Your task to perform on an android device: make emails show in primary in the gmail app Image 0: 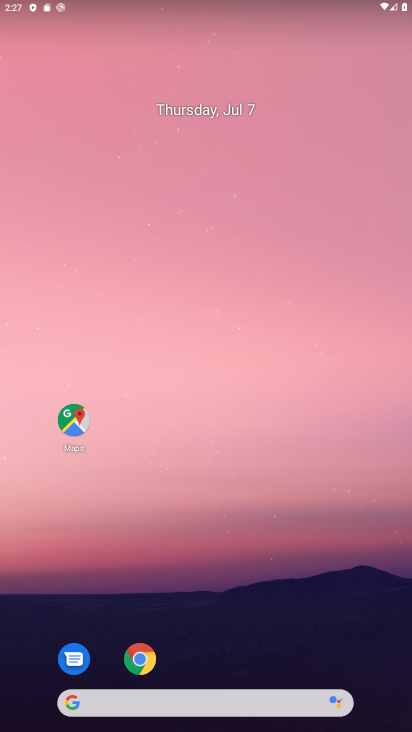
Step 0: drag from (40, 693) to (365, 16)
Your task to perform on an android device: make emails show in primary in the gmail app Image 1: 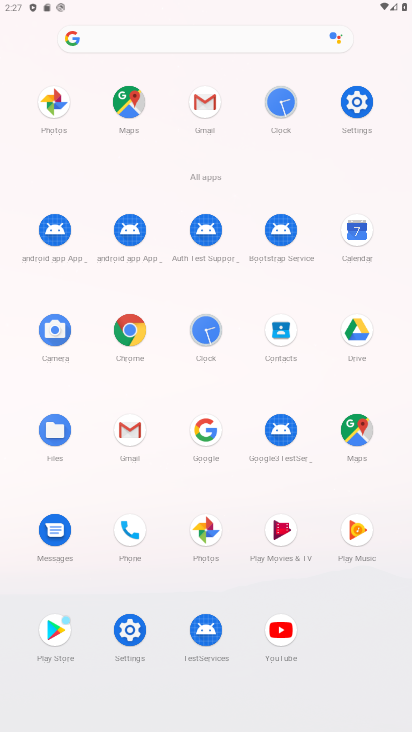
Step 1: click (125, 429)
Your task to perform on an android device: make emails show in primary in the gmail app Image 2: 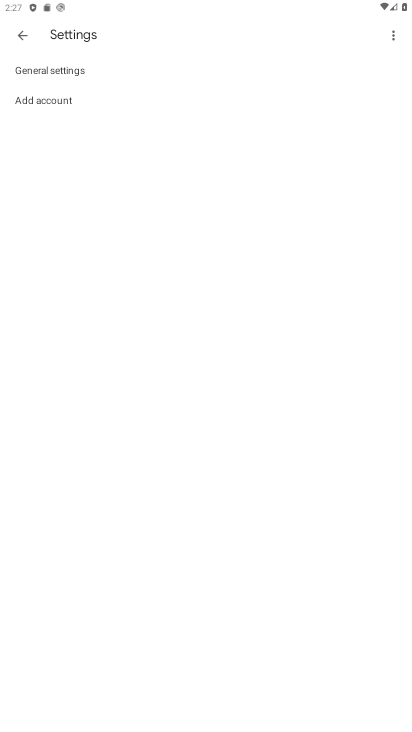
Step 2: click (13, 25)
Your task to perform on an android device: make emails show in primary in the gmail app Image 3: 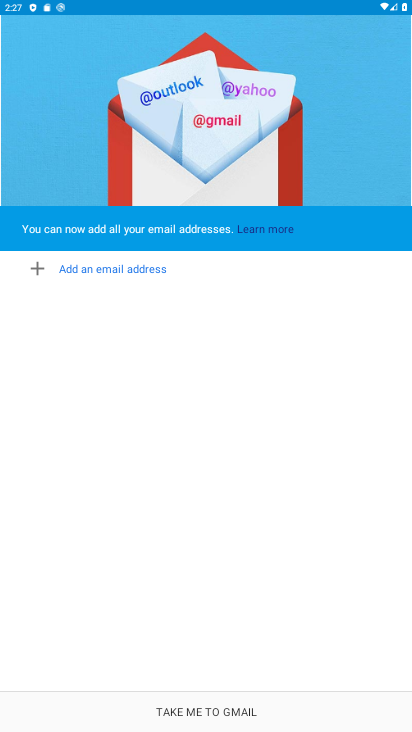
Step 3: click (154, 714)
Your task to perform on an android device: make emails show in primary in the gmail app Image 4: 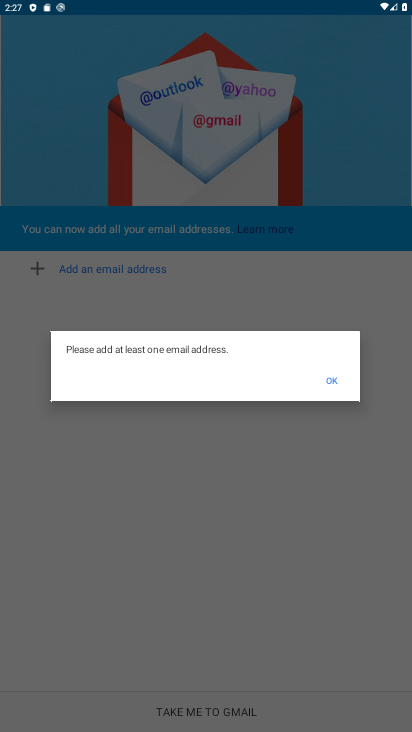
Step 4: click (334, 377)
Your task to perform on an android device: make emails show in primary in the gmail app Image 5: 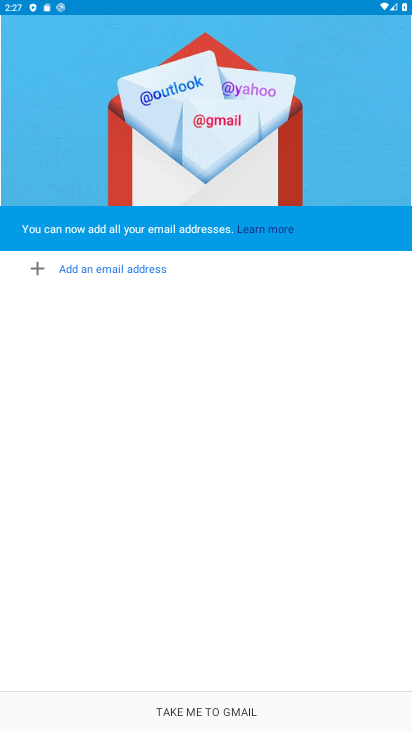
Step 5: task complete